Your task to perform on an android device: Search for sushi restaurants on Maps Image 0: 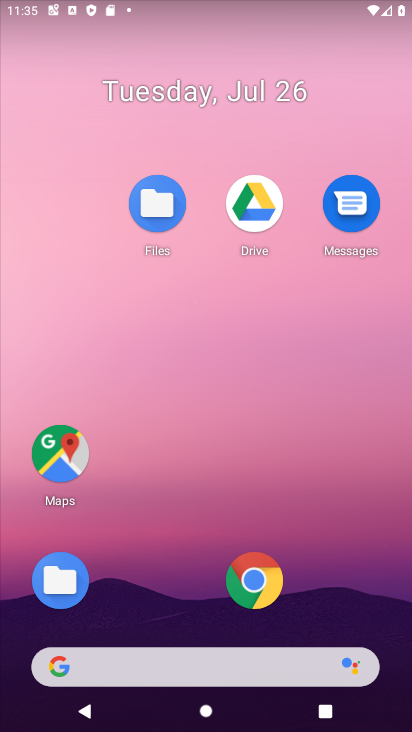
Step 0: click (45, 477)
Your task to perform on an android device: Search for sushi restaurants on Maps Image 1: 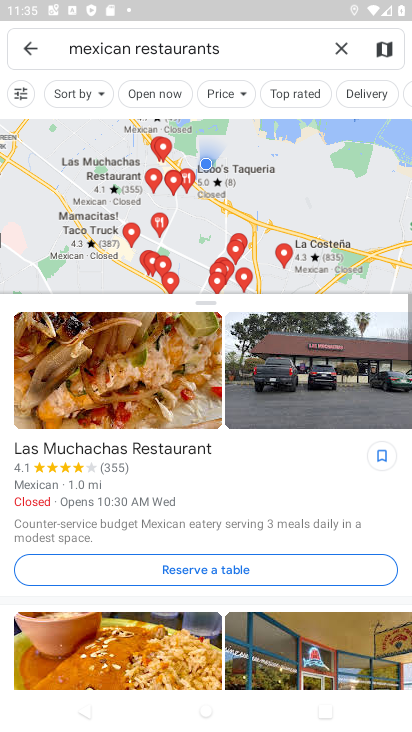
Step 1: click (335, 43)
Your task to perform on an android device: Search for sushi restaurants on Maps Image 2: 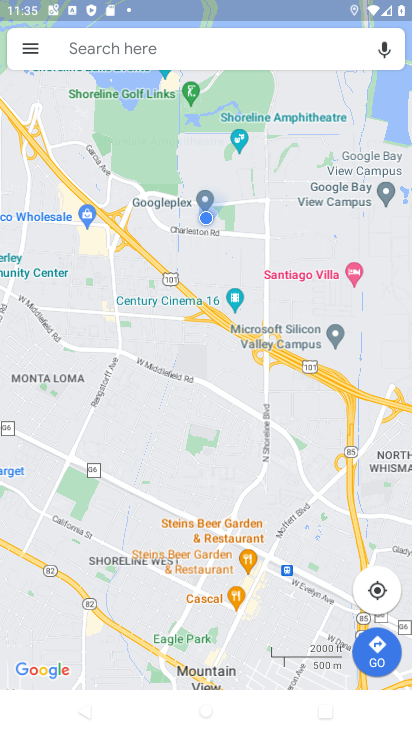
Step 2: click (244, 34)
Your task to perform on an android device: Search for sushi restaurants on Maps Image 3: 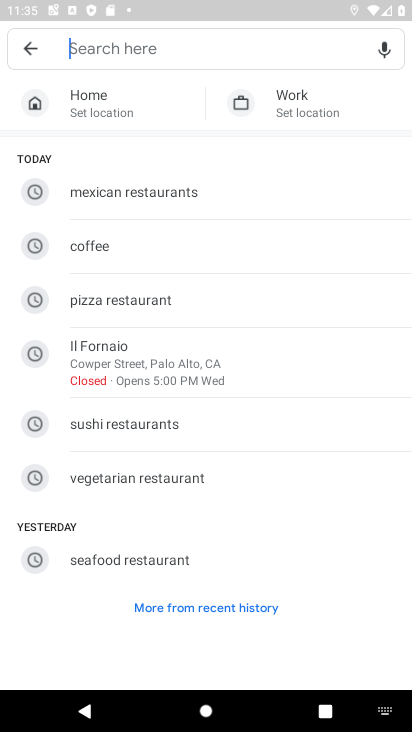
Step 3: click (202, 411)
Your task to perform on an android device: Search for sushi restaurants on Maps Image 4: 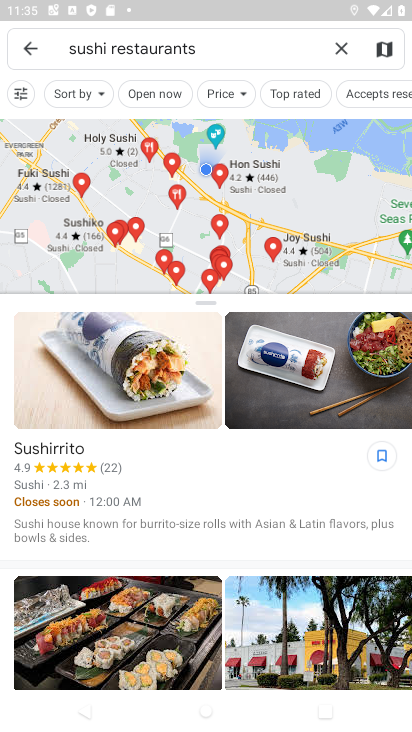
Step 4: task complete